Your task to perform on an android device: change the clock display to analog Image 0: 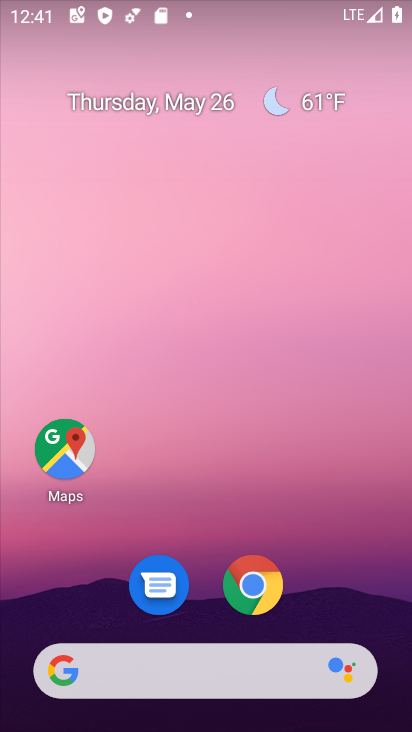
Step 0: drag from (224, 485) to (228, 41)
Your task to perform on an android device: change the clock display to analog Image 1: 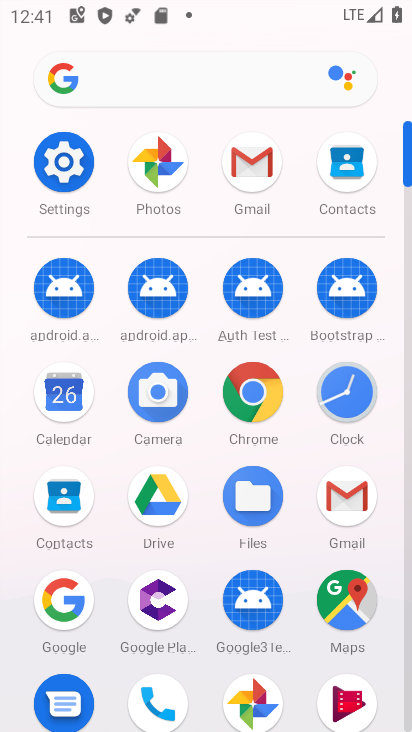
Step 1: click (350, 384)
Your task to perform on an android device: change the clock display to analog Image 2: 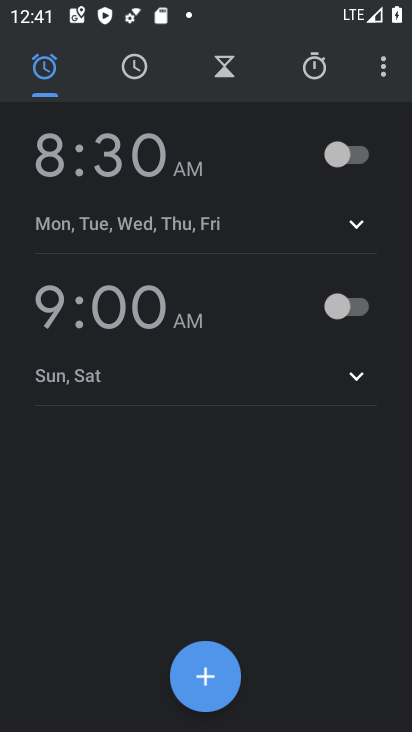
Step 2: click (133, 70)
Your task to perform on an android device: change the clock display to analog Image 3: 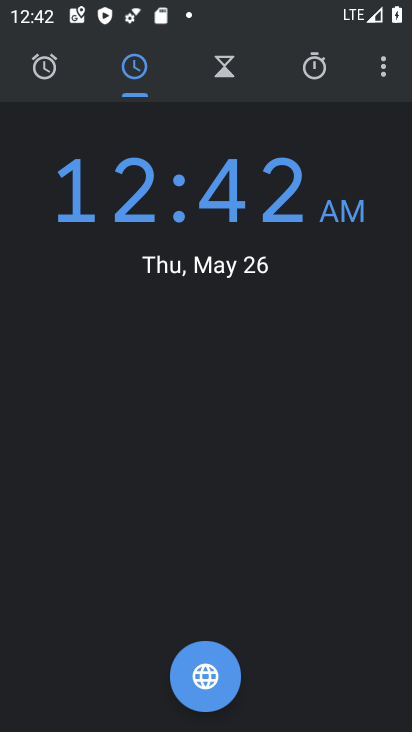
Step 3: click (380, 71)
Your task to perform on an android device: change the clock display to analog Image 4: 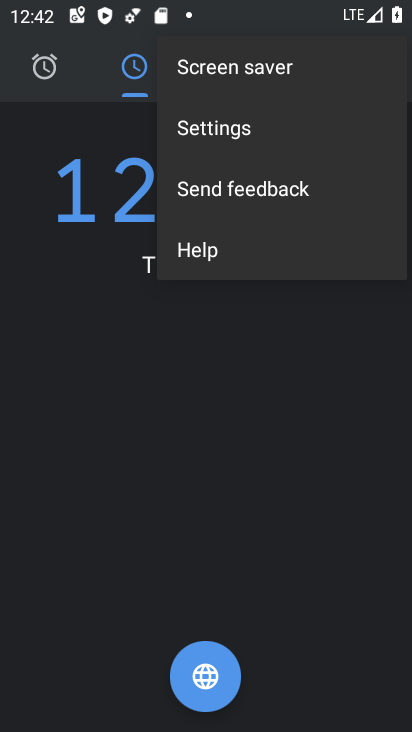
Step 4: click (273, 127)
Your task to perform on an android device: change the clock display to analog Image 5: 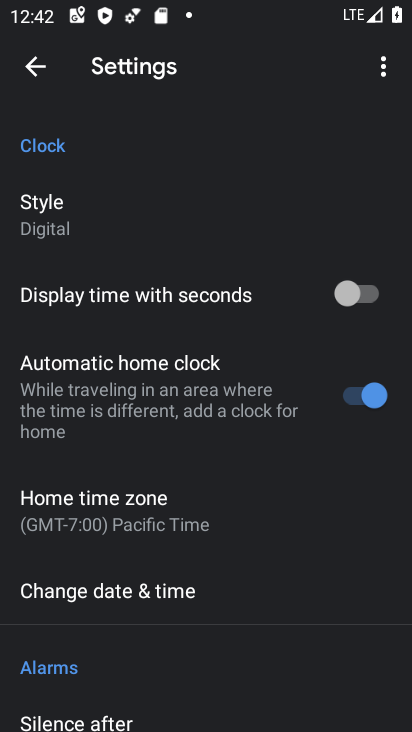
Step 5: click (88, 218)
Your task to perform on an android device: change the clock display to analog Image 6: 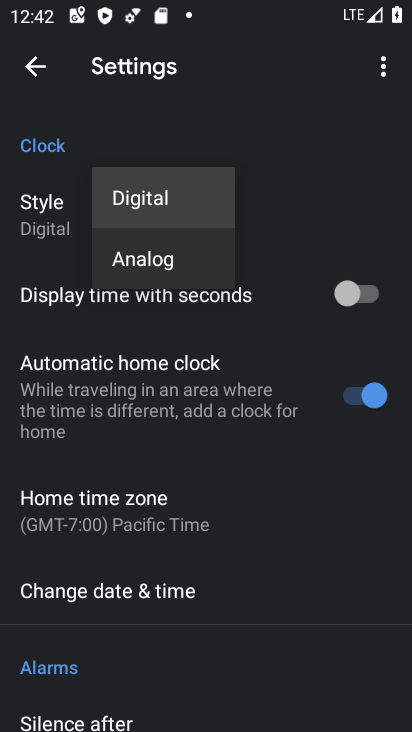
Step 6: click (131, 258)
Your task to perform on an android device: change the clock display to analog Image 7: 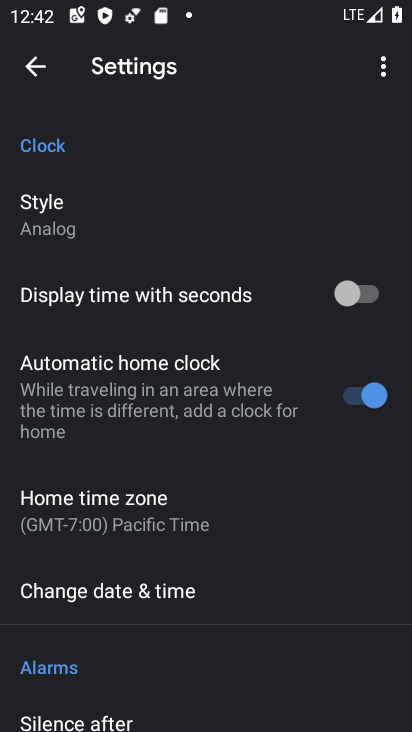
Step 7: click (34, 70)
Your task to perform on an android device: change the clock display to analog Image 8: 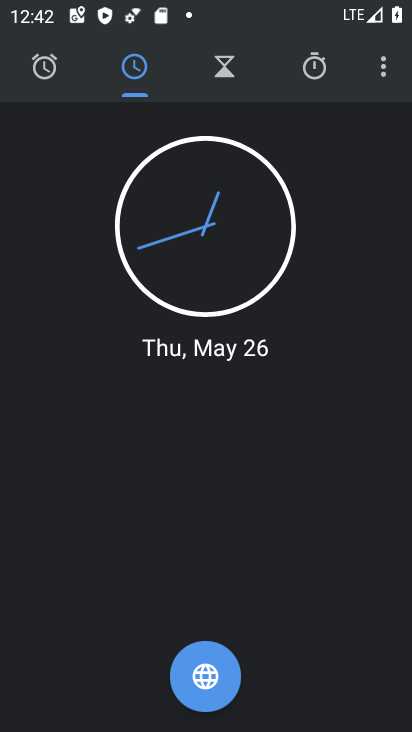
Step 8: task complete